Your task to perform on an android device: turn on priority inbox in the gmail app Image 0: 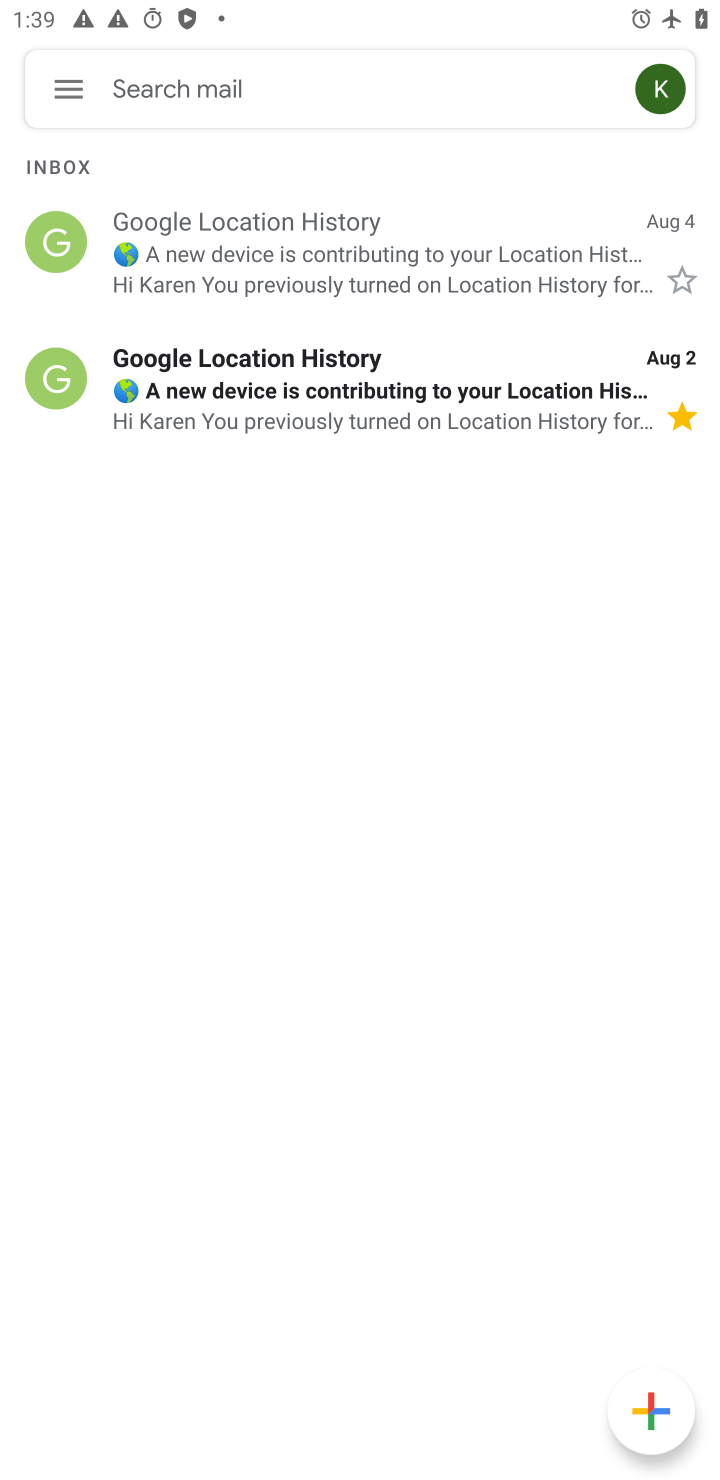
Step 0: press home button
Your task to perform on an android device: turn on priority inbox in the gmail app Image 1: 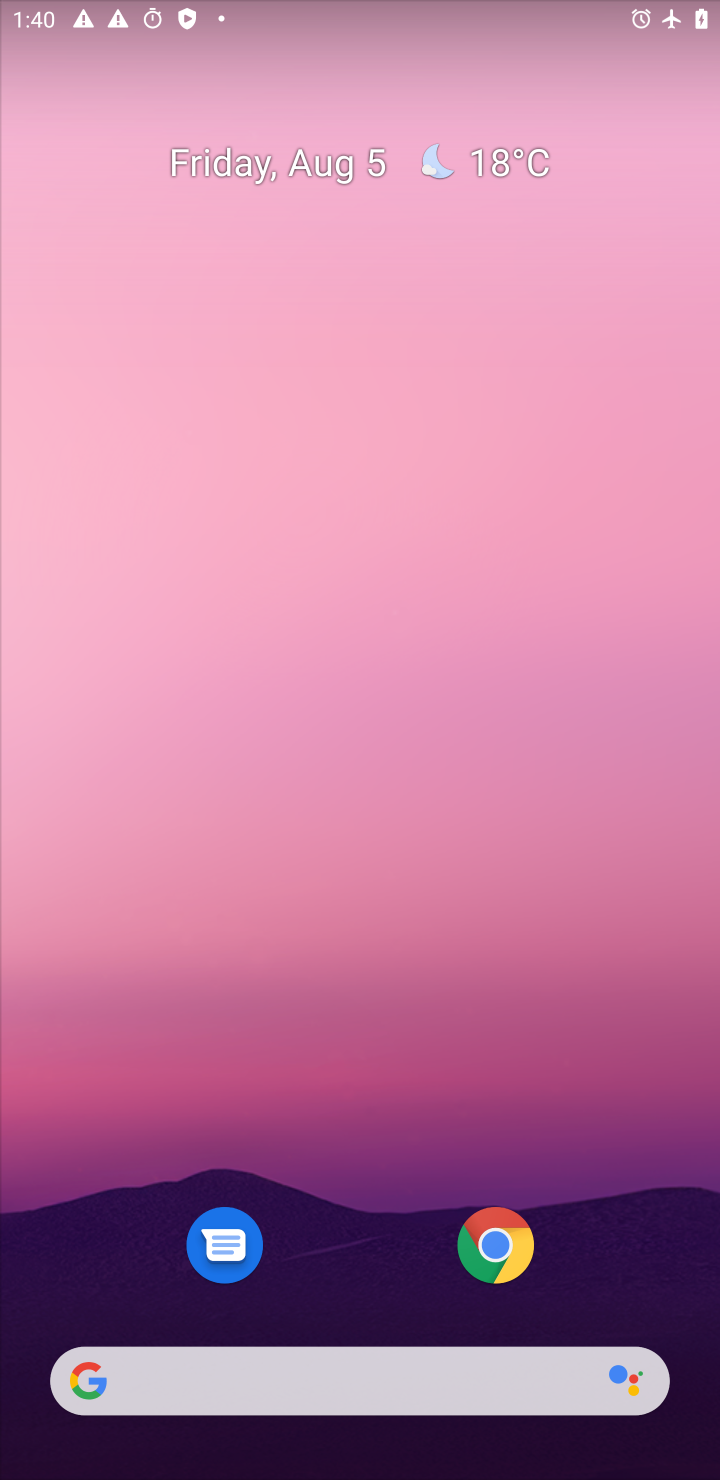
Step 1: drag from (417, 1317) to (502, 281)
Your task to perform on an android device: turn on priority inbox in the gmail app Image 2: 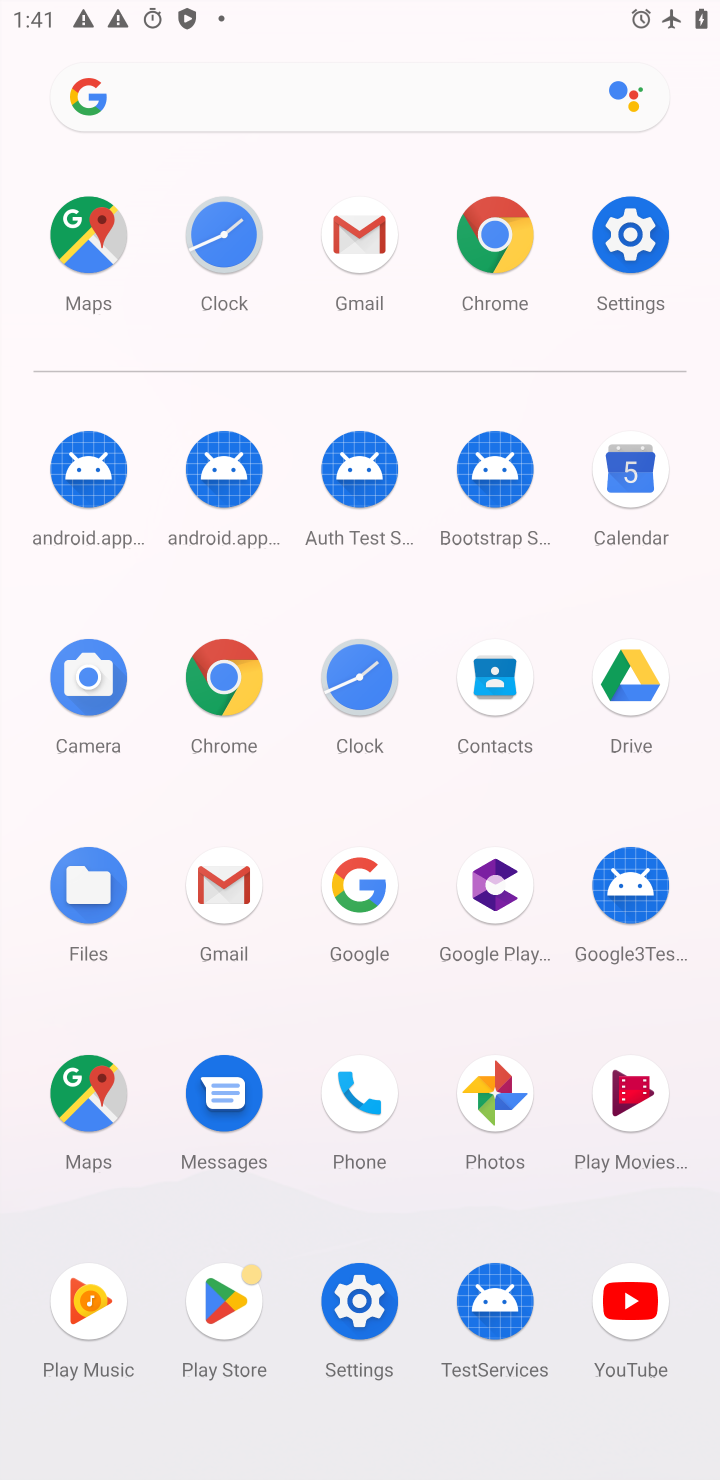
Step 2: click (367, 267)
Your task to perform on an android device: turn on priority inbox in the gmail app Image 3: 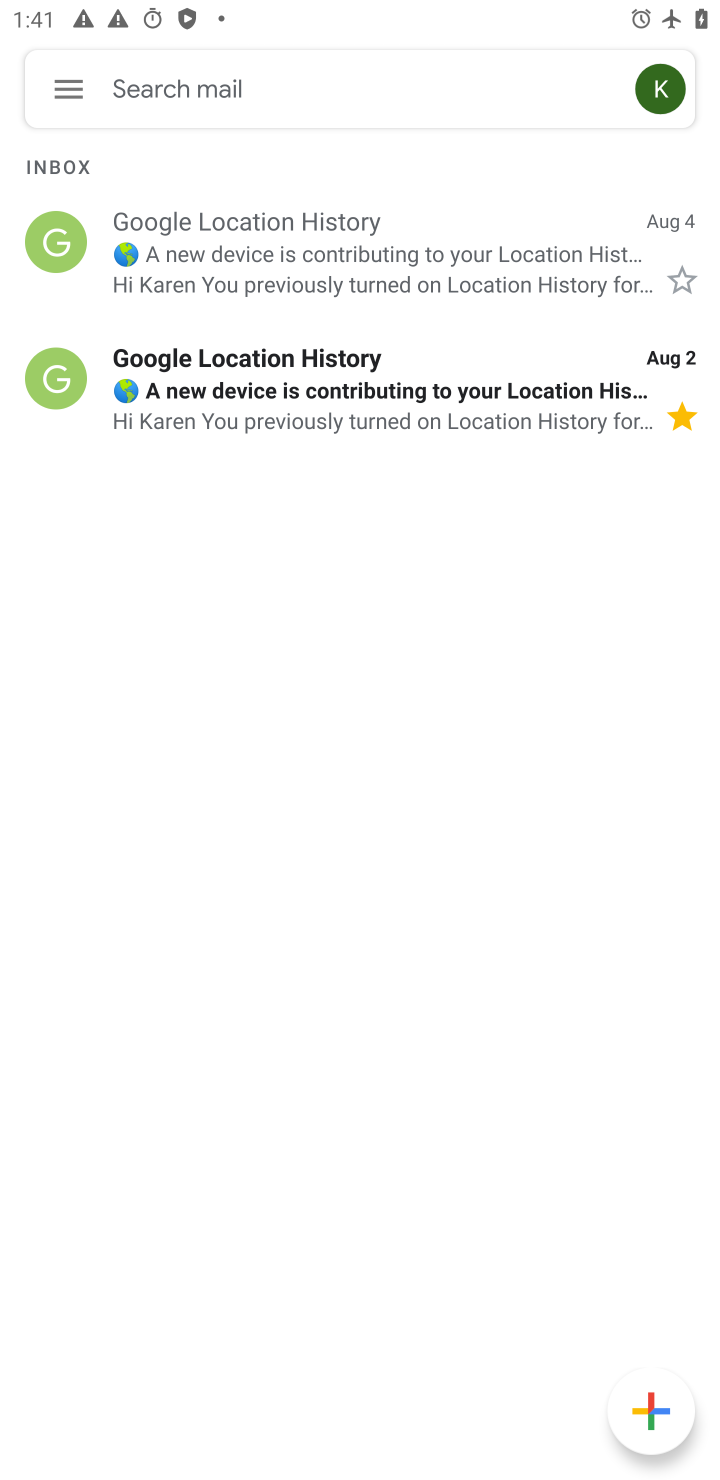
Step 3: click (89, 104)
Your task to perform on an android device: turn on priority inbox in the gmail app Image 4: 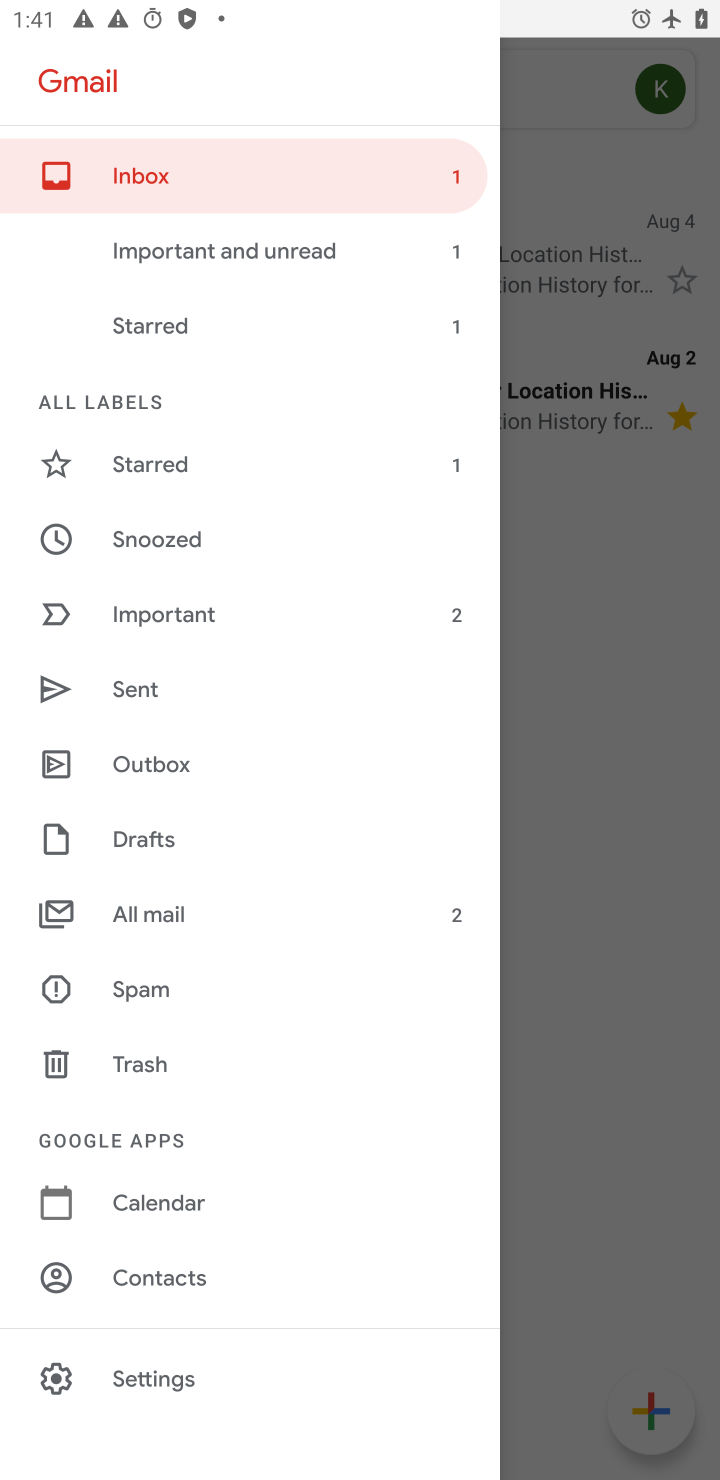
Step 4: click (127, 1366)
Your task to perform on an android device: turn on priority inbox in the gmail app Image 5: 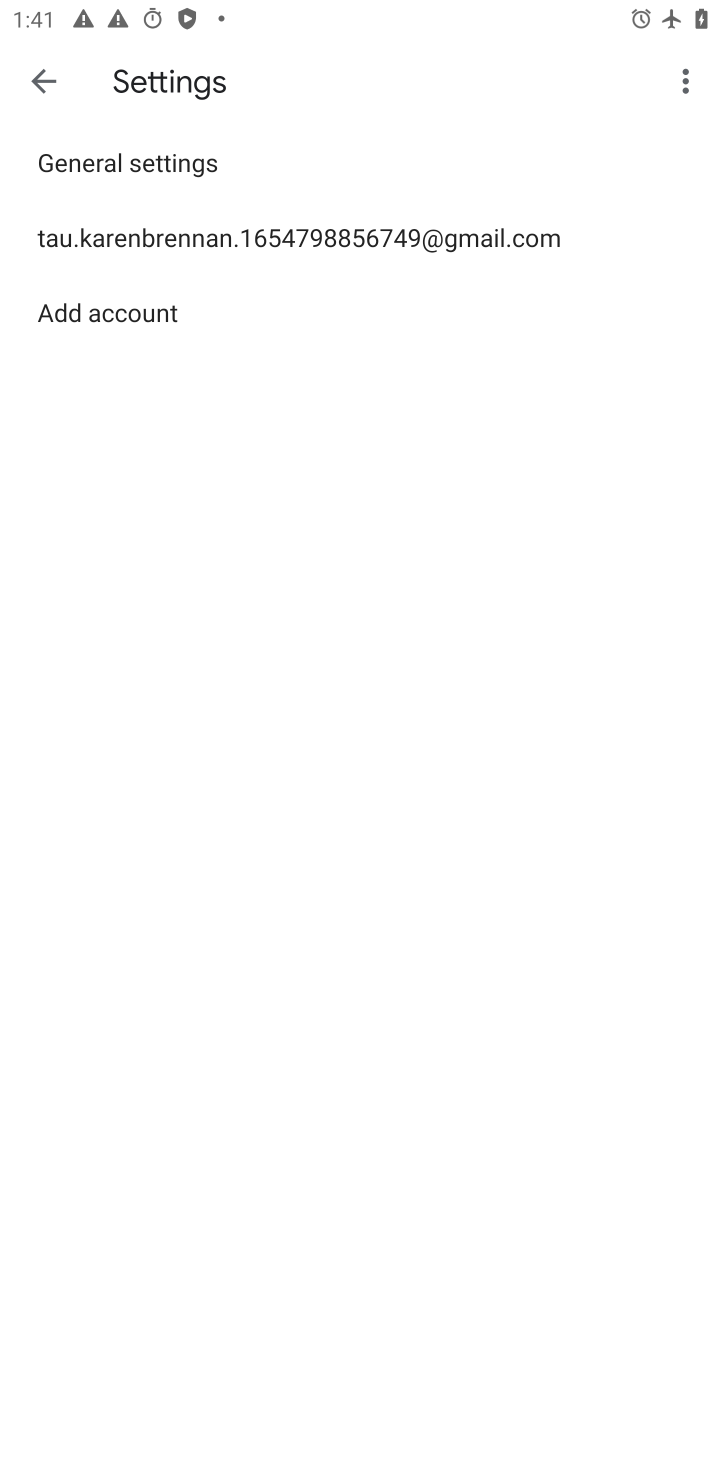
Step 5: click (320, 238)
Your task to perform on an android device: turn on priority inbox in the gmail app Image 6: 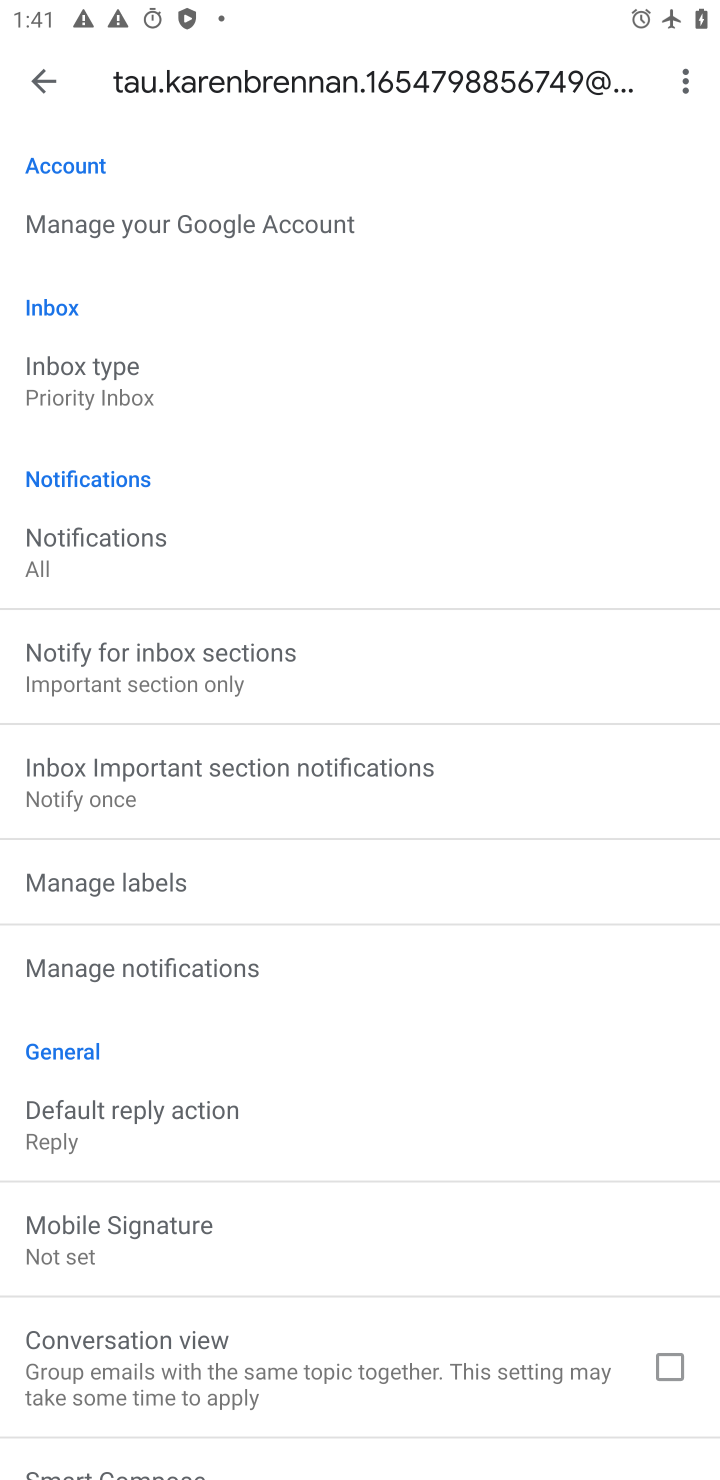
Step 6: click (105, 376)
Your task to perform on an android device: turn on priority inbox in the gmail app Image 7: 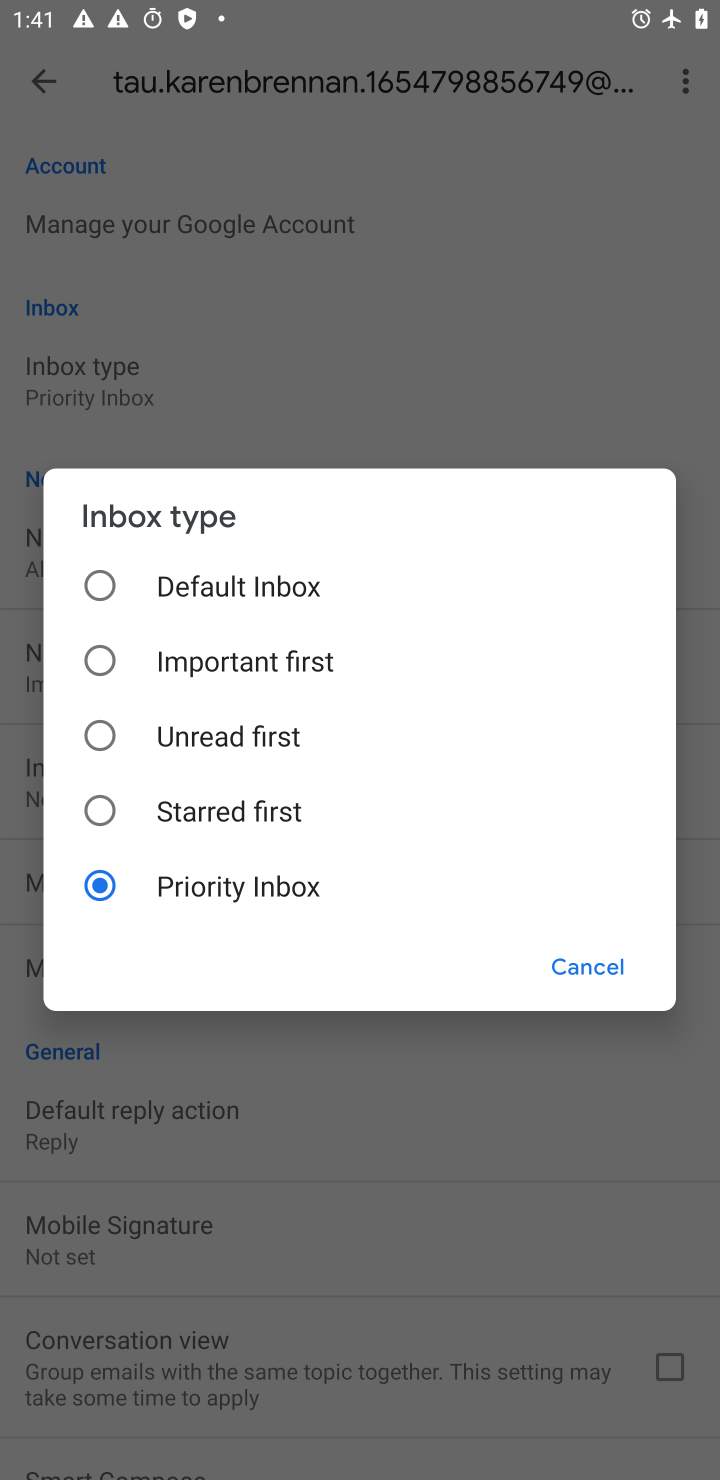
Step 7: task complete